Your task to perform on an android device: Open my contact list Image 0: 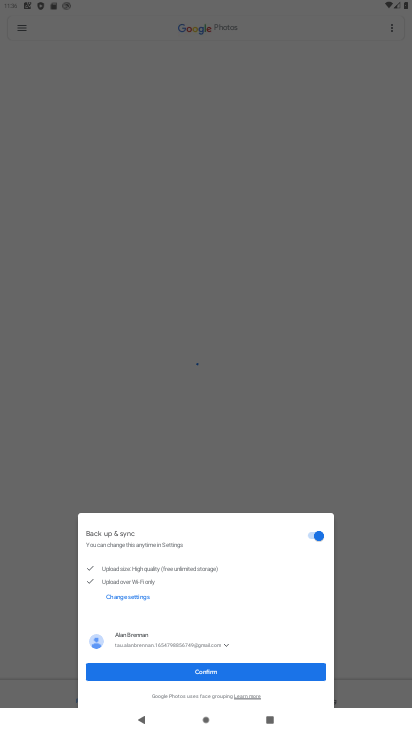
Step 0: press home button
Your task to perform on an android device: Open my contact list Image 1: 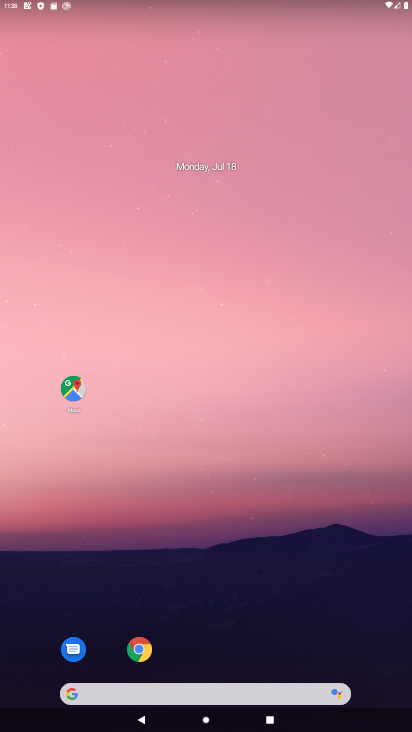
Step 1: drag from (392, 704) to (289, 50)
Your task to perform on an android device: Open my contact list Image 2: 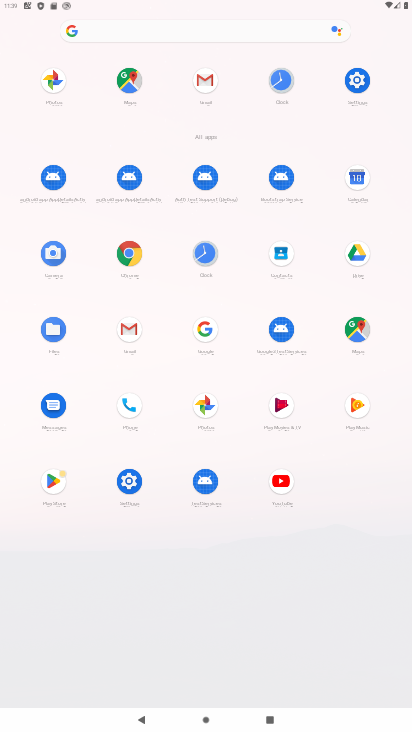
Step 2: click (276, 253)
Your task to perform on an android device: Open my contact list Image 3: 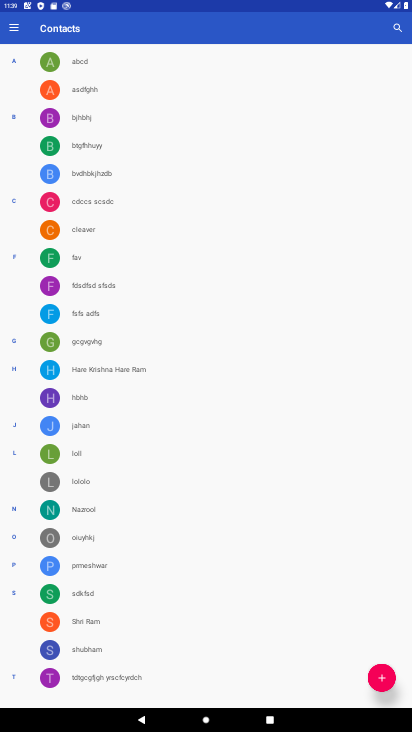
Step 3: click (374, 677)
Your task to perform on an android device: Open my contact list Image 4: 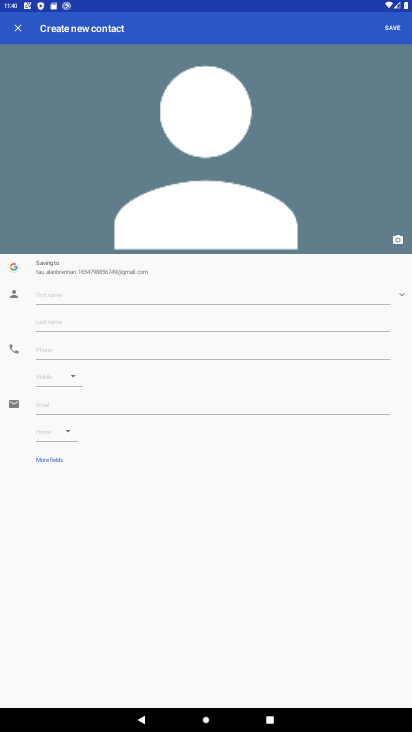
Step 4: click (44, 291)
Your task to perform on an android device: Open my contact list Image 5: 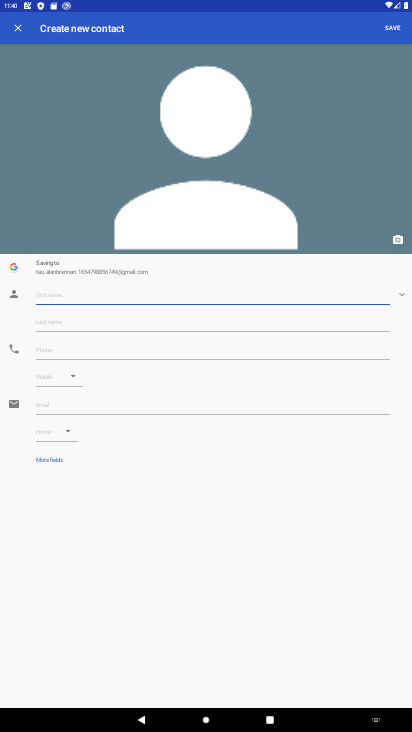
Step 5: click (12, 25)
Your task to perform on an android device: Open my contact list Image 6: 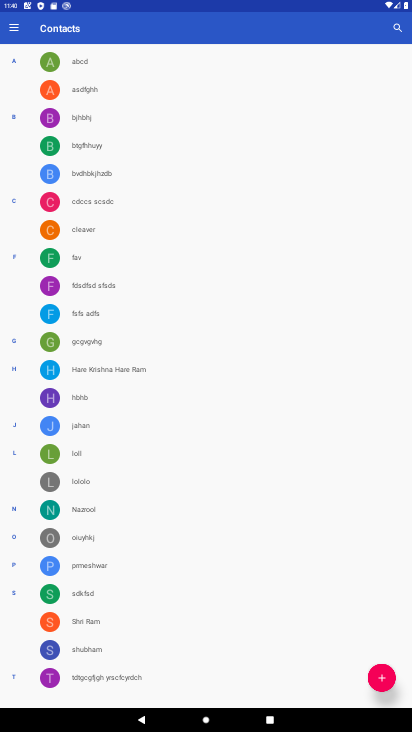
Step 6: task complete